Your task to perform on an android device: check data usage Image 0: 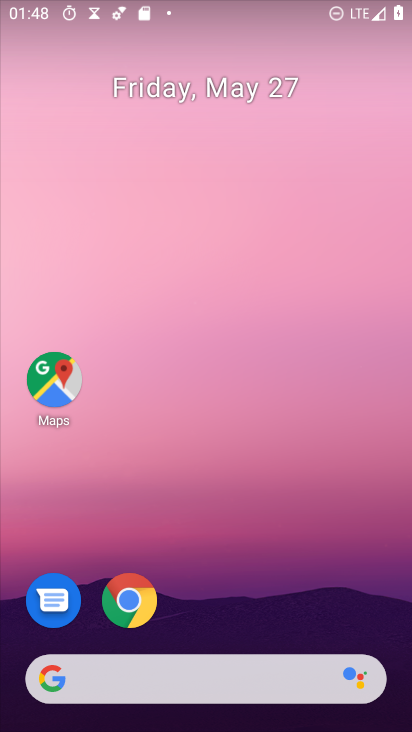
Step 0: drag from (253, 571) to (308, 8)
Your task to perform on an android device: check data usage Image 1: 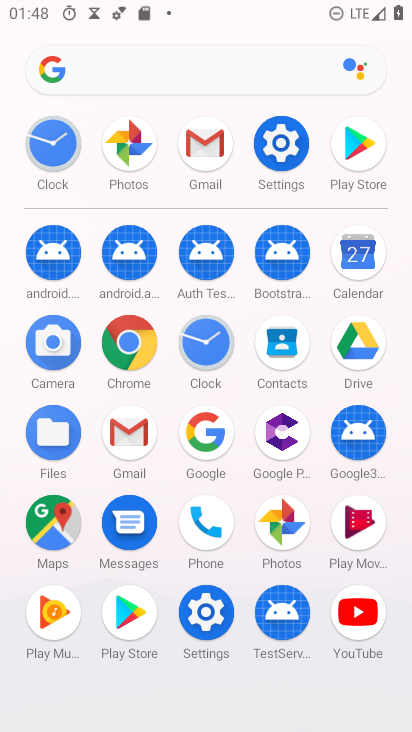
Step 1: click (286, 142)
Your task to perform on an android device: check data usage Image 2: 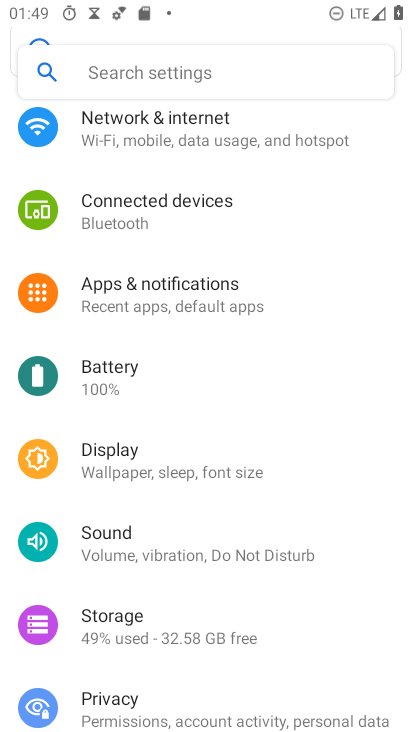
Step 2: click (214, 110)
Your task to perform on an android device: check data usage Image 3: 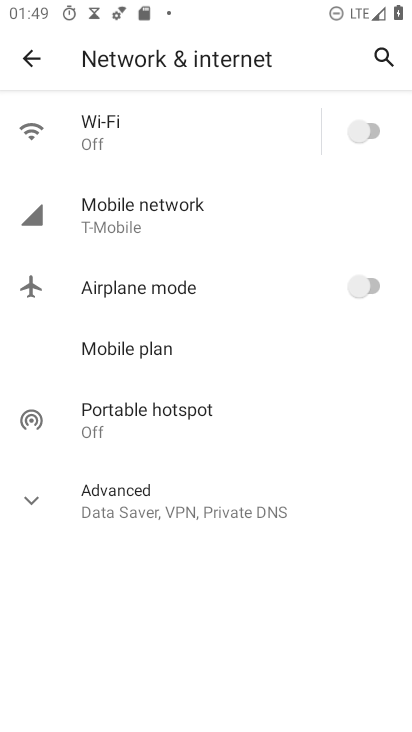
Step 3: click (193, 196)
Your task to perform on an android device: check data usage Image 4: 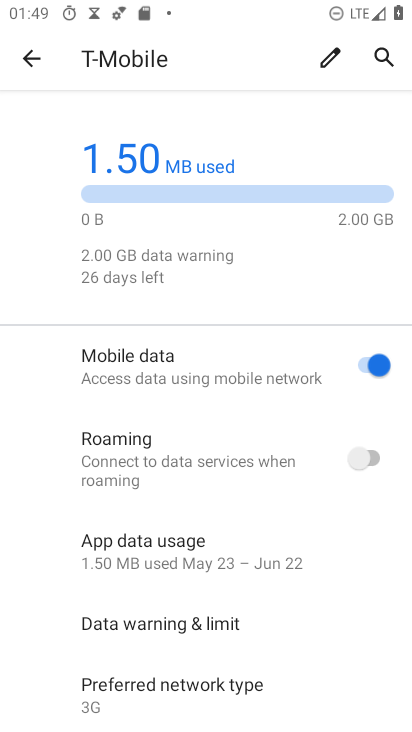
Step 4: task complete